Your task to perform on an android device: Go to eBay Image 0: 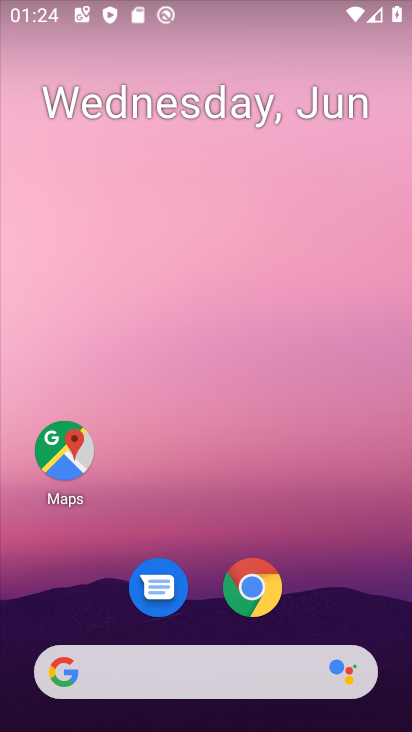
Step 0: click (258, 588)
Your task to perform on an android device: Go to eBay Image 1: 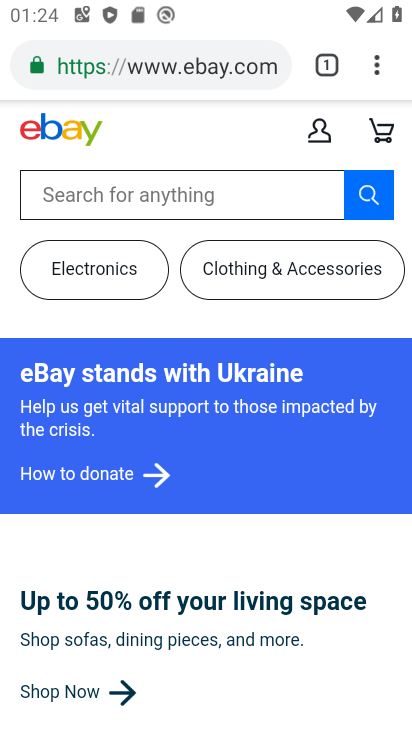
Step 1: task complete